Your task to perform on an android device: check the backup settings in the google photos Image 0: 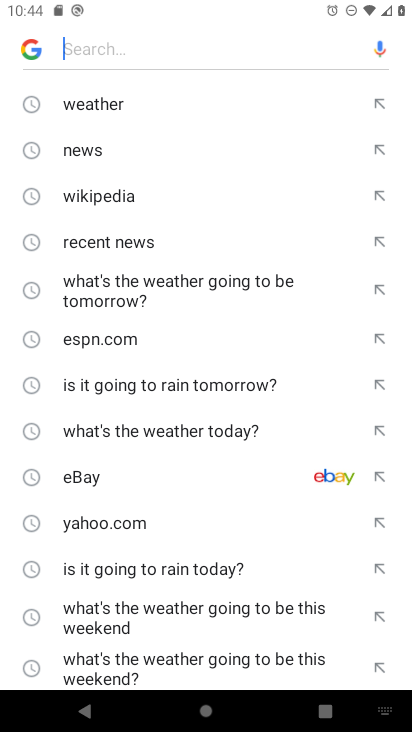
Step 0: press home button
Your task to perform on an android device: check the backup settings in the google photos Image 1: 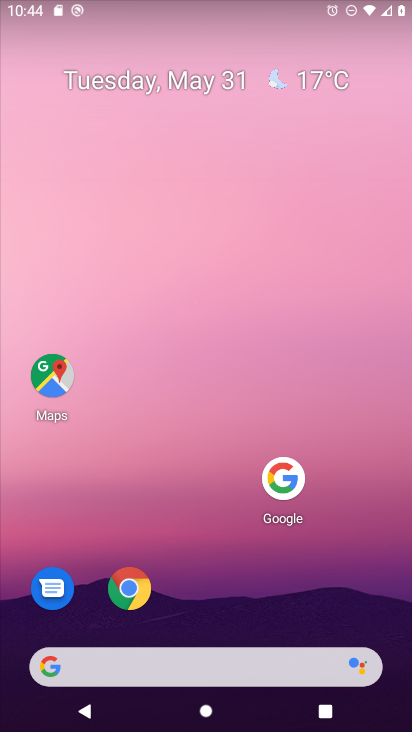
Step 1: drag from (189, 667) to (305, 49)
Your task to perform on an android device: check the backup settings in the google photos Image 2: 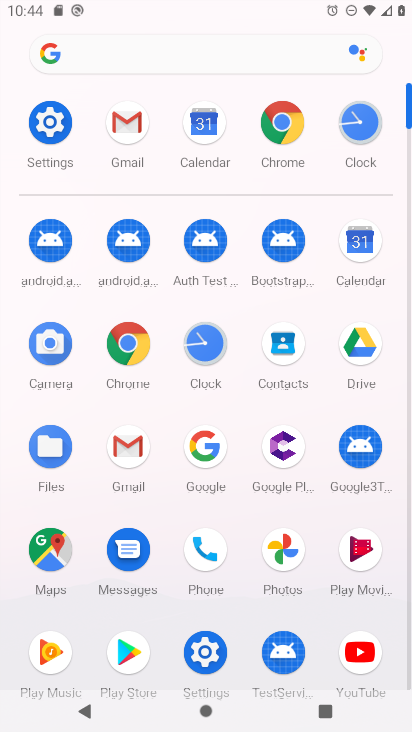
Step 2: click (280, 553)
Your task to perform on an android device: check the backup settings in the google photos Image 3: 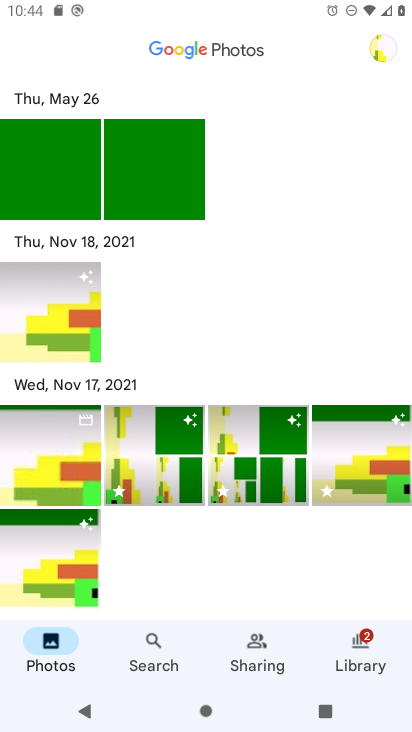
Step 3: click (383, 53)
Your task to perform on an android device: check the backup settings in the google photos Image 4: 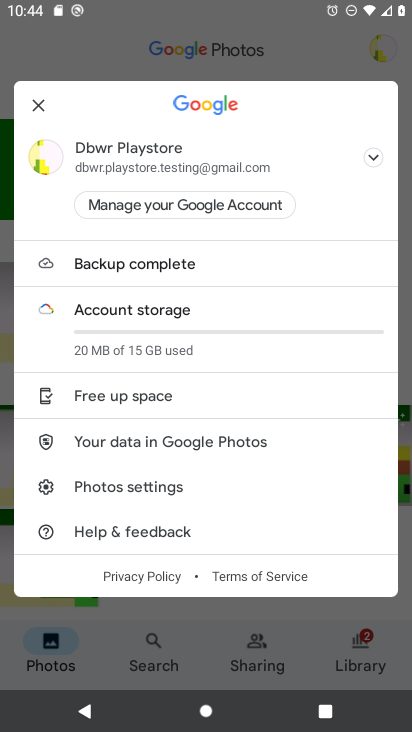
Step 4: click (155, 489)
Your task to perform on an android device: check the backup settings in the google photos Image 5: 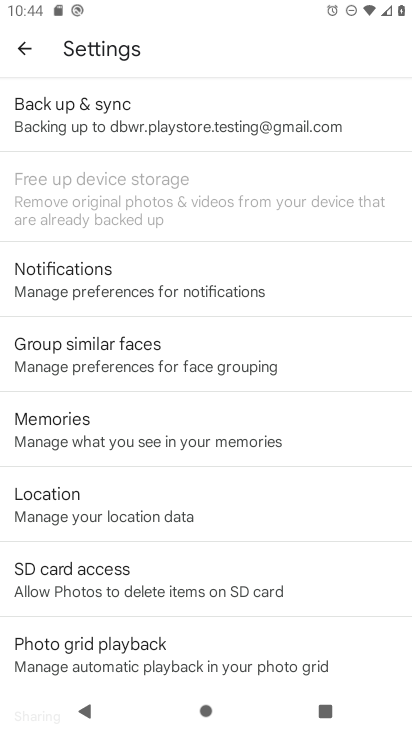
Step 5: click (182, 111)
Your task to perform on an android device: check the backup settings in the google photos Image 6: 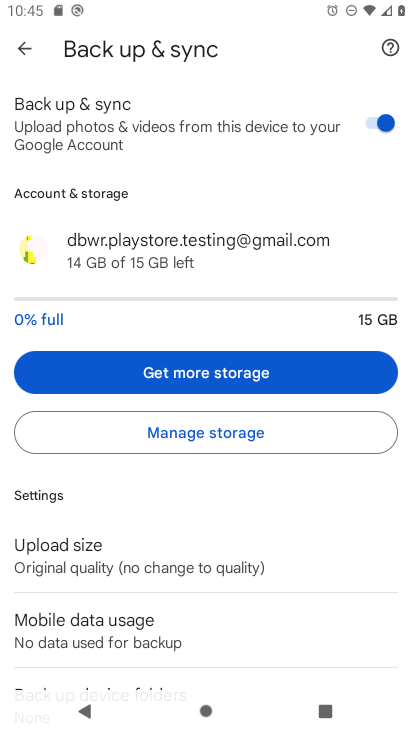
Step 6: task complete